Your task to perform on an android device: delete the emails in spam in the gmail app Image 0: 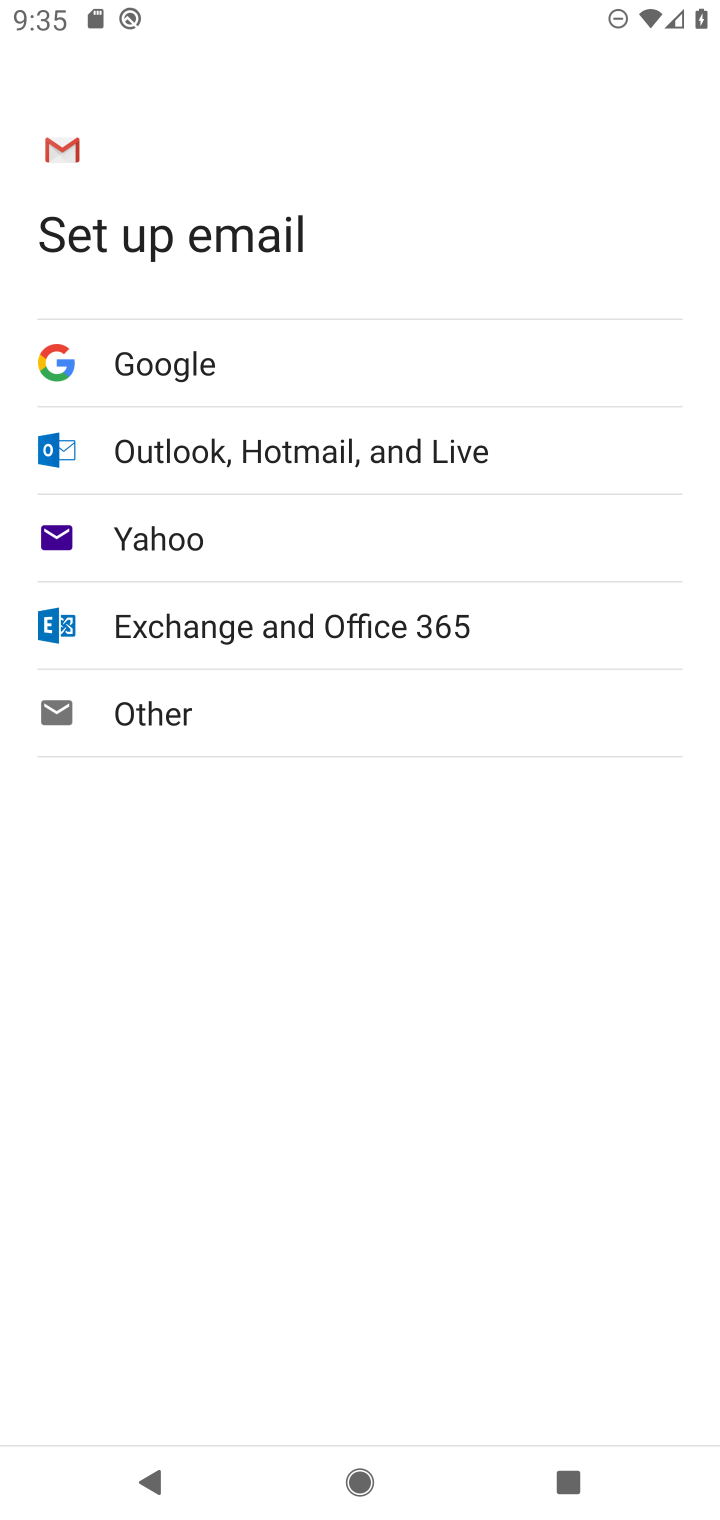
Step 0: press home button
Your task to perform on an android device: delete the emails in spam in the gmail app Image 1: 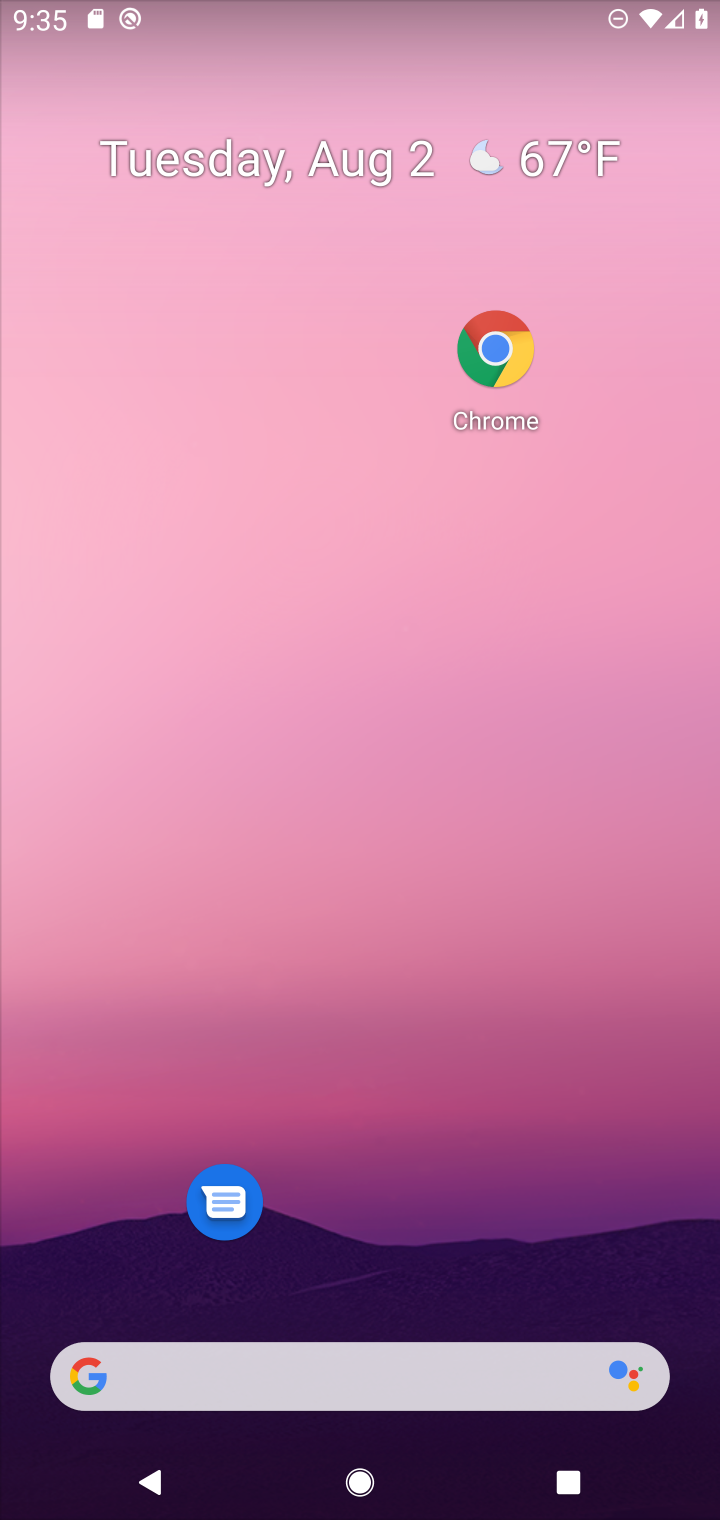
Step 1: drag from (404, 1238) to (444, 62)
Your task to perform on an android device: delete the emails in spam in the gmail app Image 2: 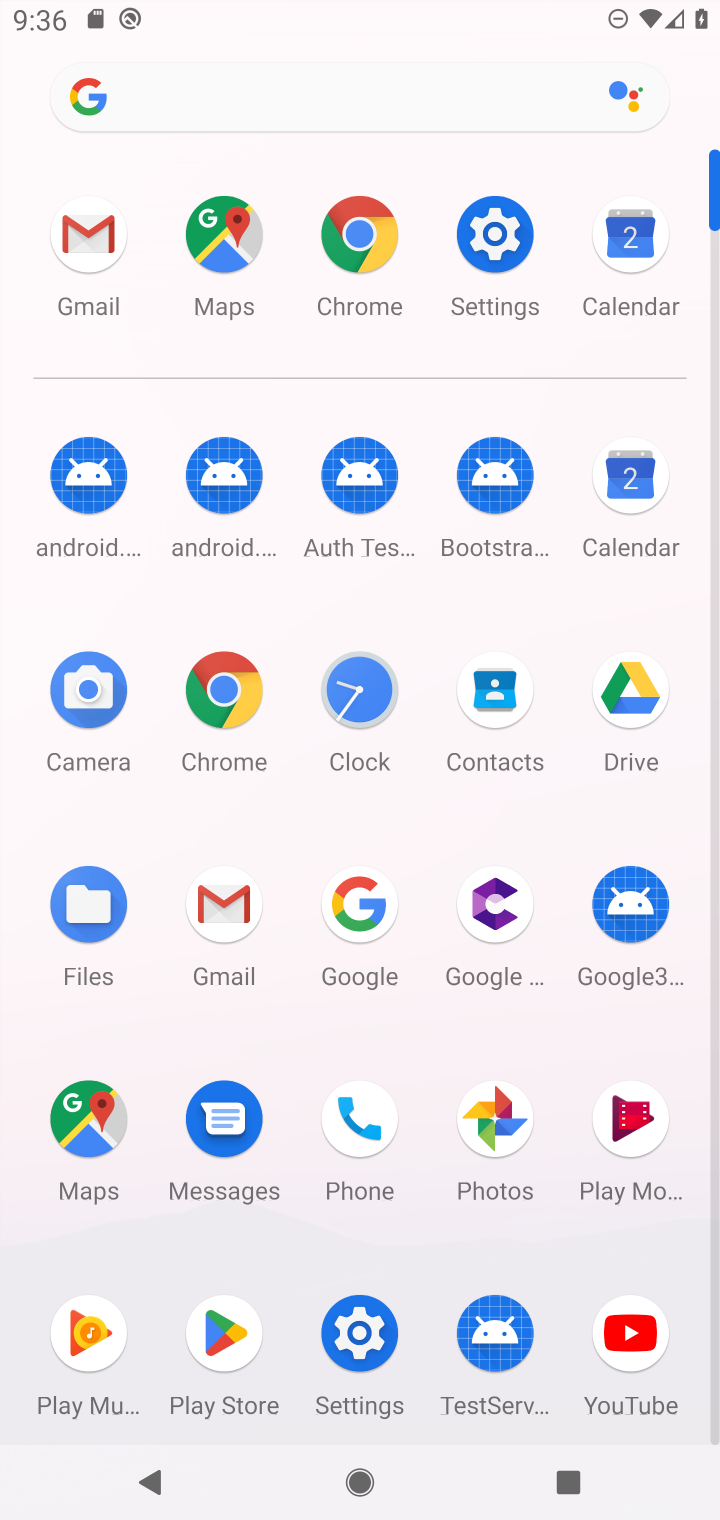
Step 2: click (72, 249)
Your task to perform on an android device: delete the emails in spam in the gmail app Image 3: 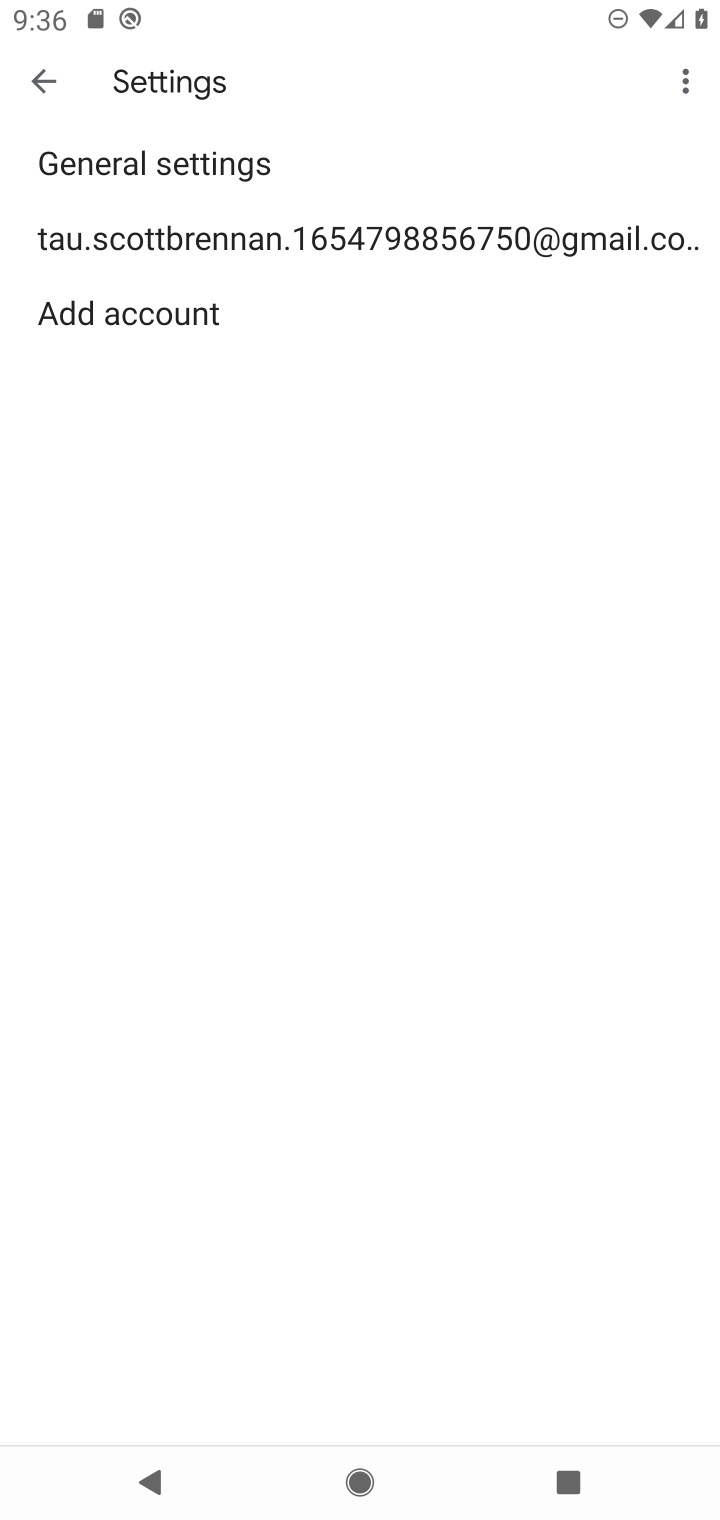
Step 3: click (30, 76)
Your task to perform on an android device: delete the emails in spam in the gmail app Image 4: 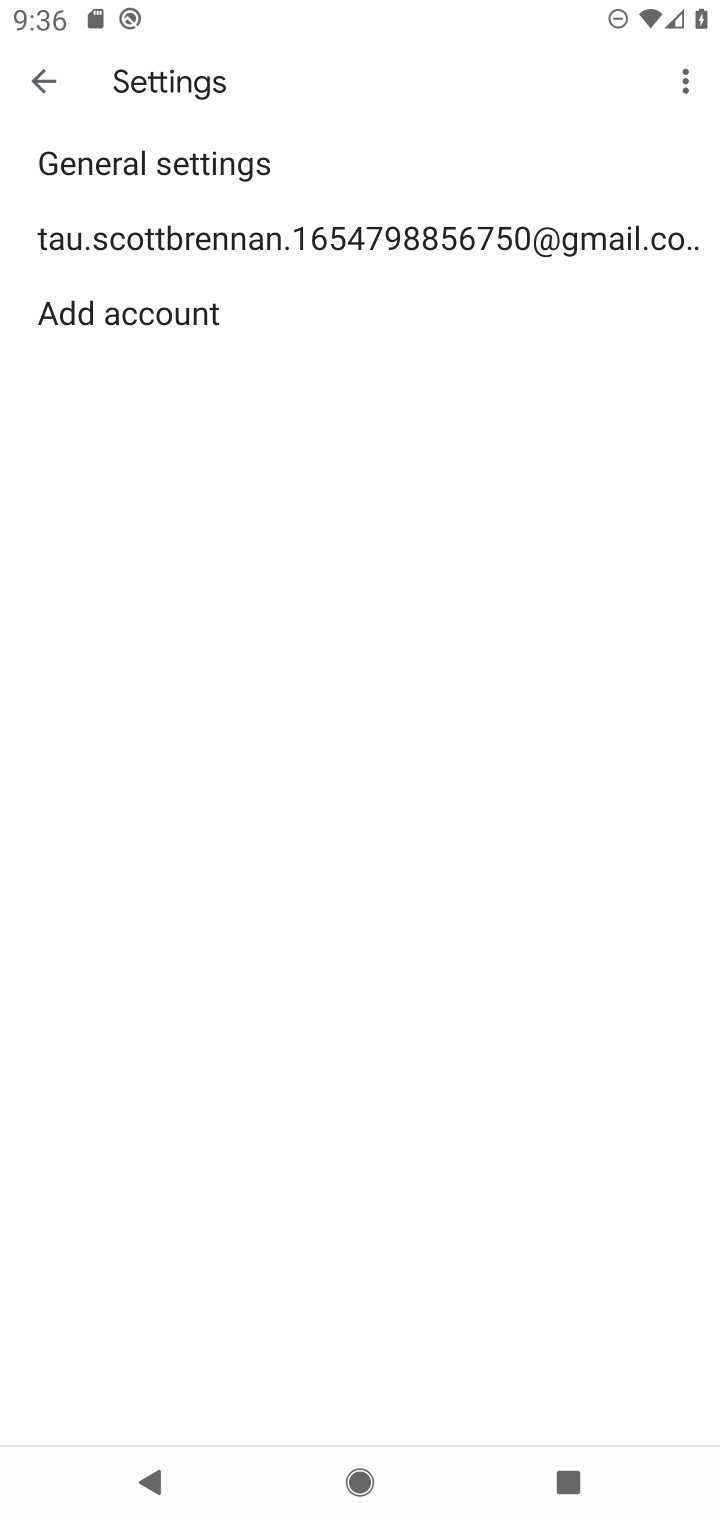
Step 4: click (46, 88)
Your task to perform on an android device: delete the emails in spam in the gmail app Image 5: 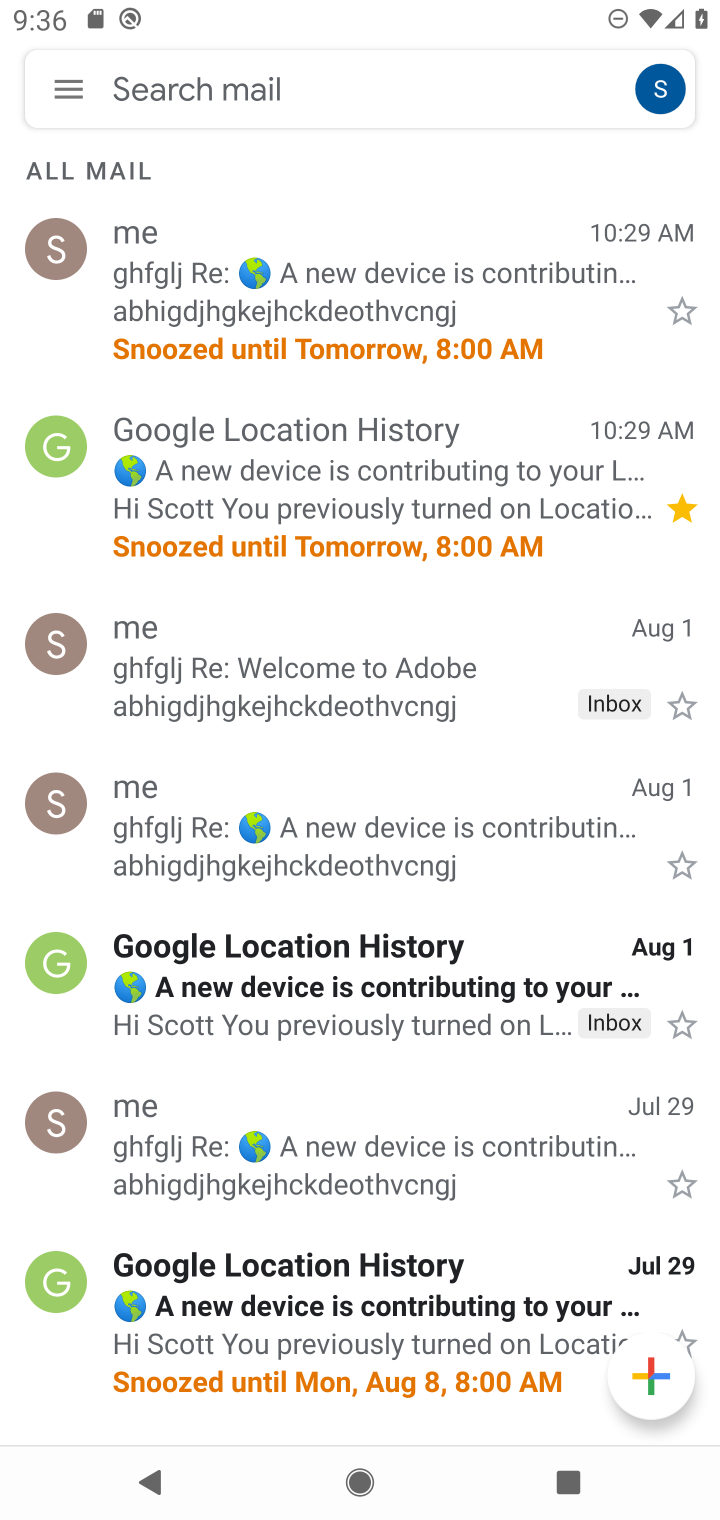
Step 5: click (68, 94)
Your task to perform on an android device: delete the emails in spam in the gmail app Image 6: 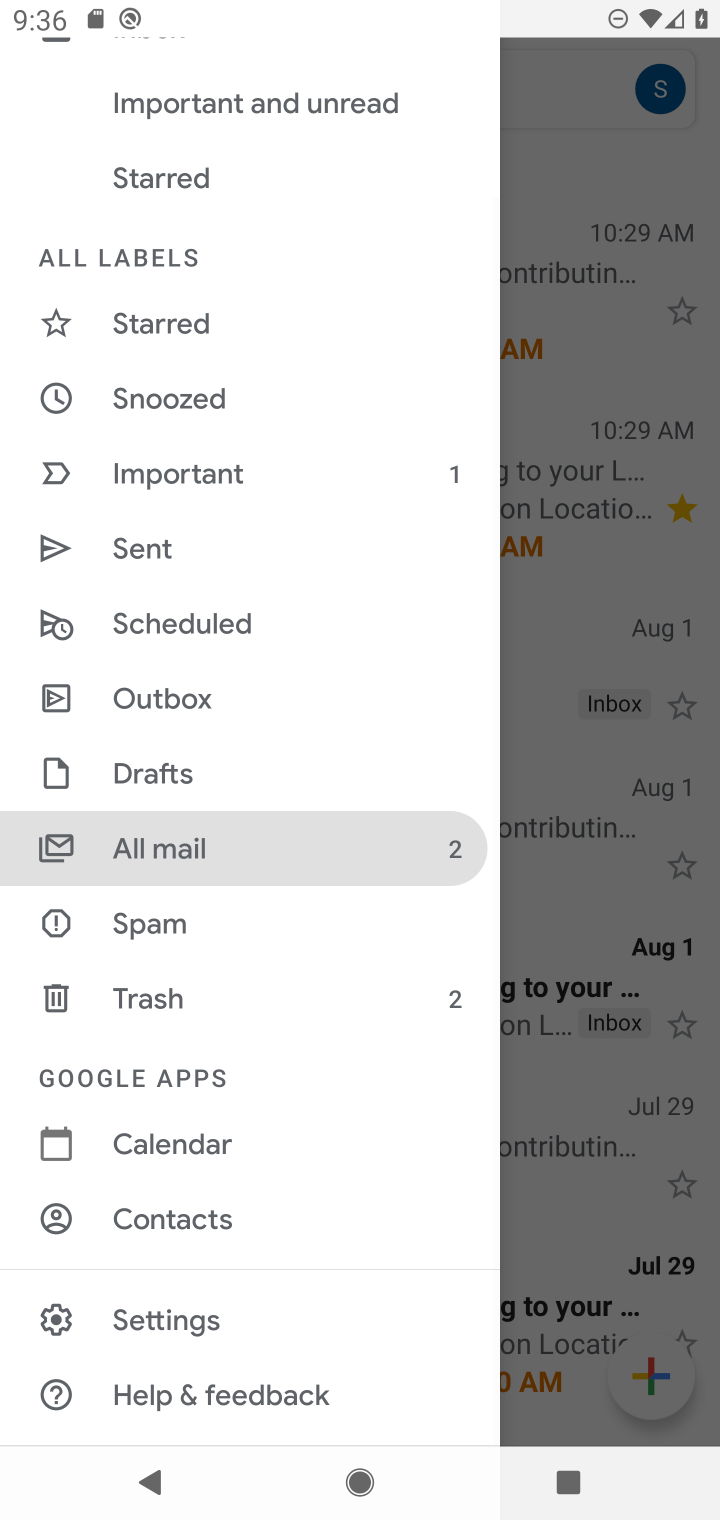
Step 6: click (103, 924)
Your task to perform on an android device: delete the emails in spam in the gmail app Image 7: 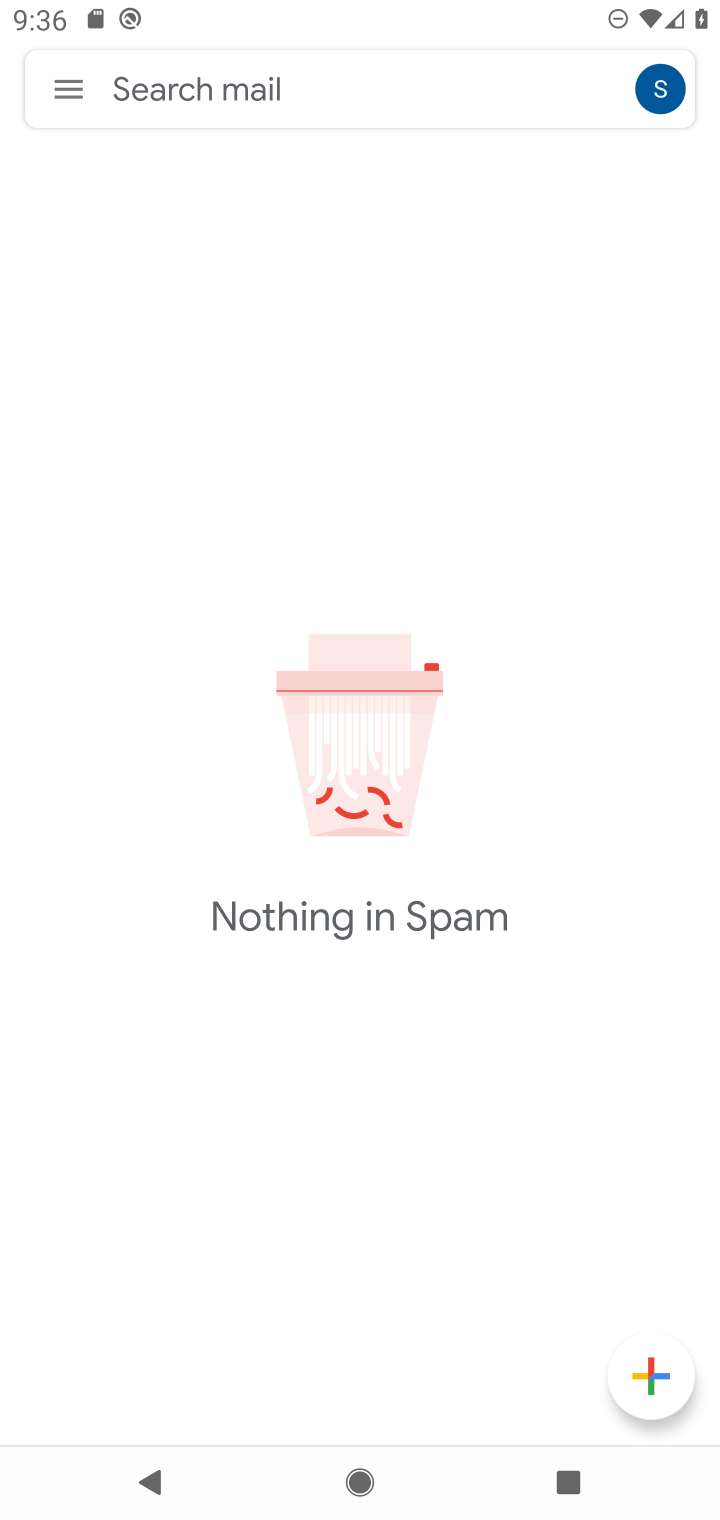
Step 7: task complete